Your task to perform on an android device: turn on translation in the chrome app Image 0: 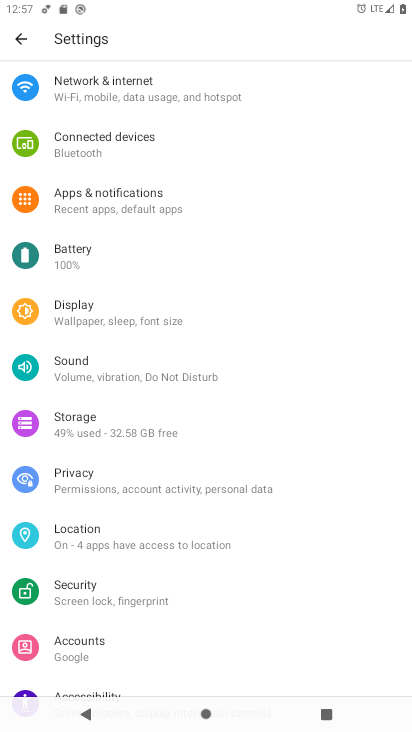
Step 0: press home button
Your task to perform on an android device: turn on translation in the chrome app Image 1: 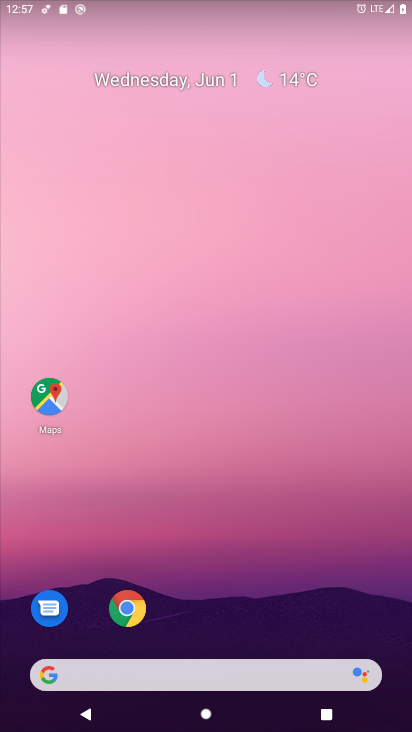
Step 1: drag from (201, 636) to (236, 1)
Your task to perform on an android device: turn on translation in the chrome app Image 2: 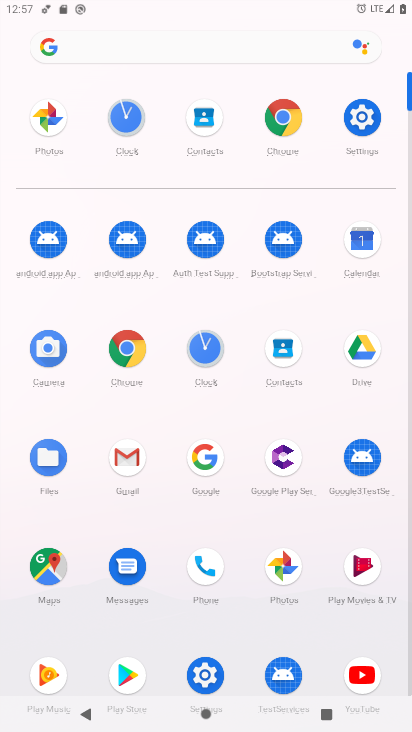
Step 2: click (114, 339)
Your task to perform on an android device: turn on translation in the chrome app Image 3: 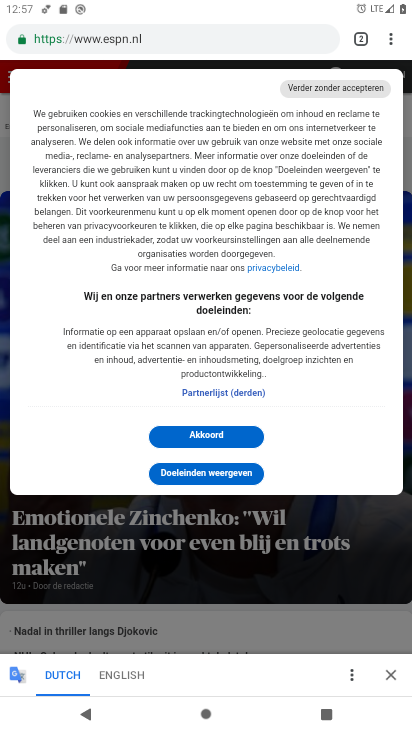
Step 3: click (395, 46)
Your task to perform on an android device: turn on translation in the chrome app Image 4: 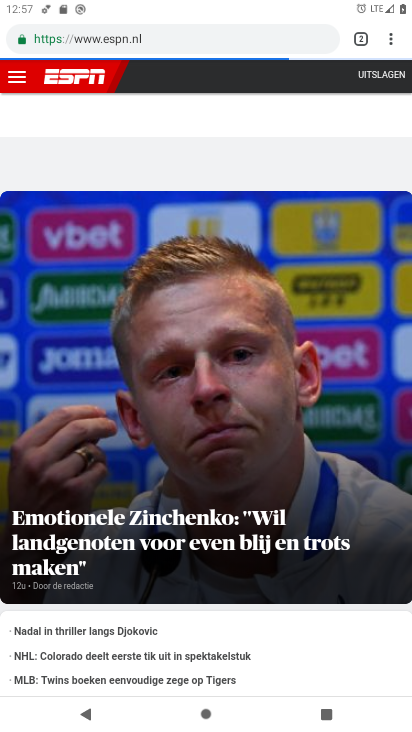
Step 4: click (394, 34)
Your task to perform on an android device: turn on translation in the chrome app Image 5: 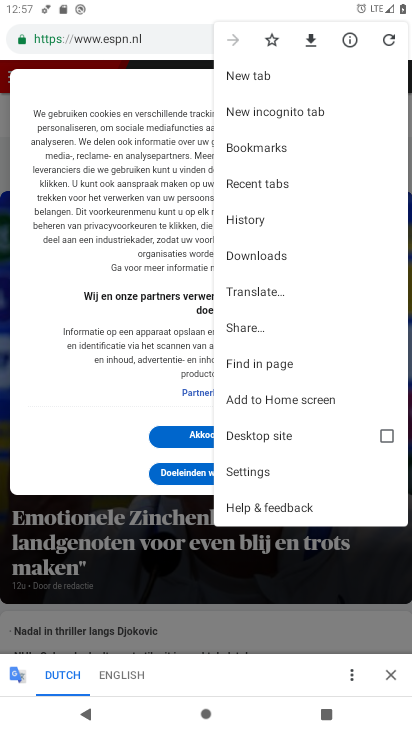
Step 5: click (258, 470)
Your task to perform on an android device: turn on translation in the chrome app Image 6: 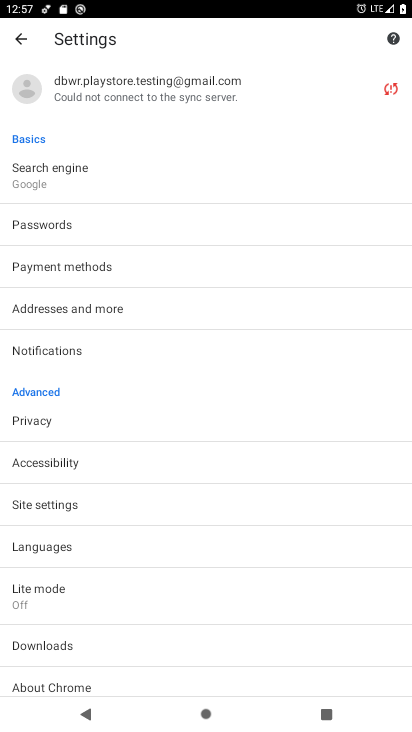
Step 6: click (64, 544)
Your task to perform on an android device: turn on translation in the chrome app Image 7: 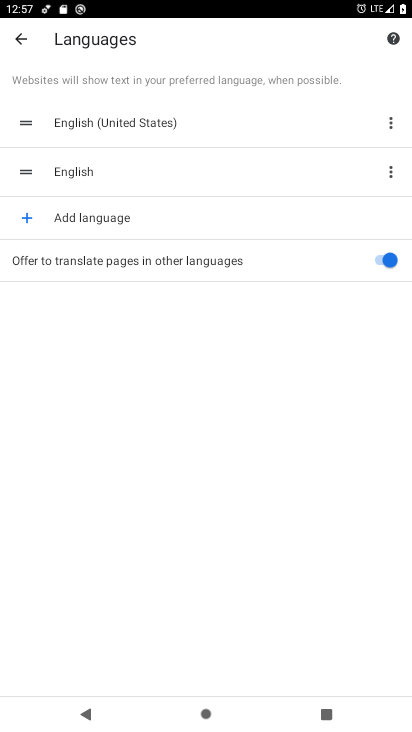
Step 7: task complete